Your task to perform on an android device: toggle priority inbox in the gmail app Image 0: 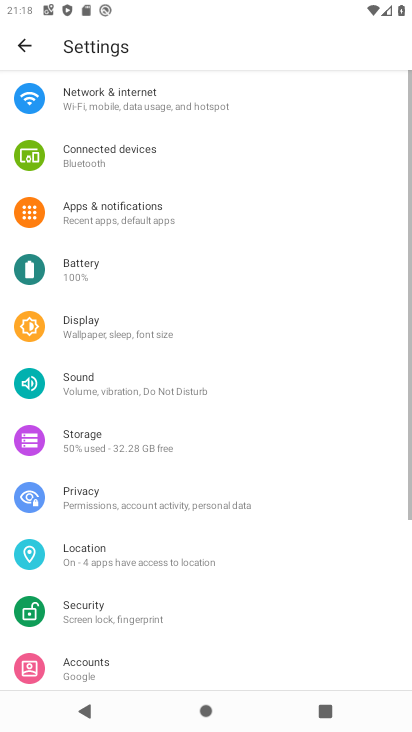
Step 0: press home button
Your task to perform on an android device: toggle priority inbox in the gmail app Image 1: 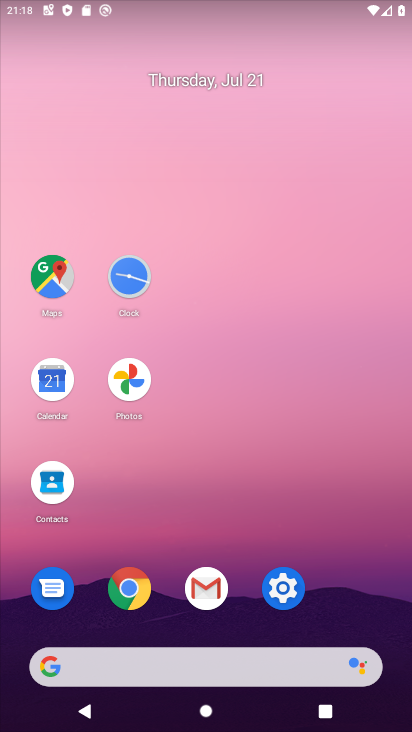
Step 1: click (200, 595)
Your task to perform on an android device: toggle priority inbox in the gmail app Image 2: 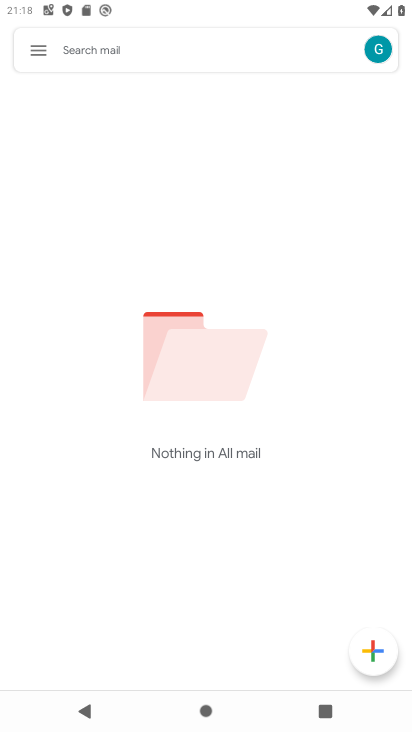
Step 2: click (36, 48)
Your task to perform on an android device: toggle priority inbox in the gmail app Image 3: 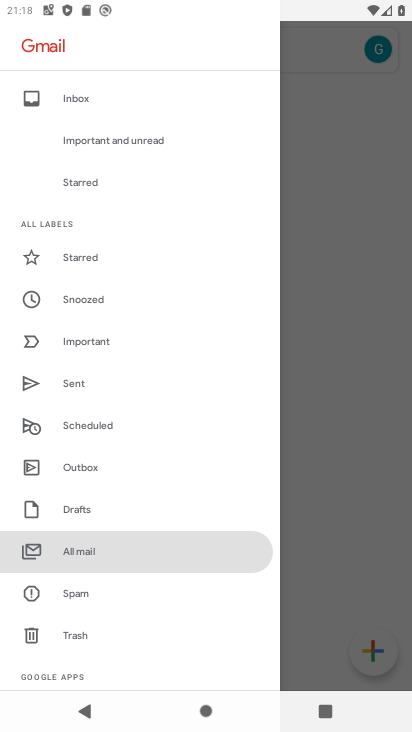
Step 3: drag from (148, 613) to (30, 201)
Your task to perform on an android device: toggle priority inbox in the gmail app Image 4: 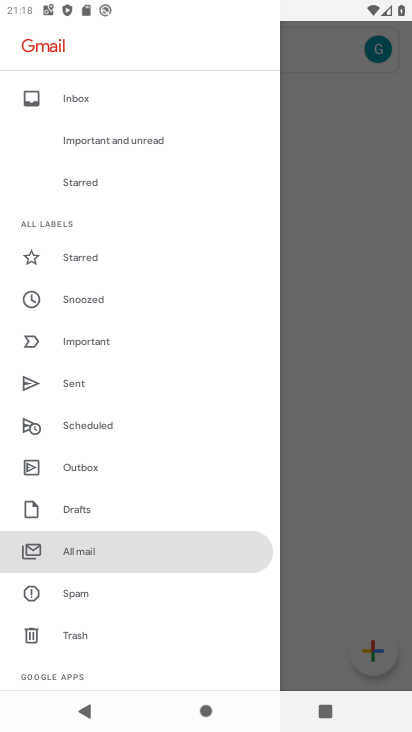
Step 4: drag from (127, 607) to (179, 302)
Your task to perform on an android device: toggle priority inbox in the gmail app Image 5: 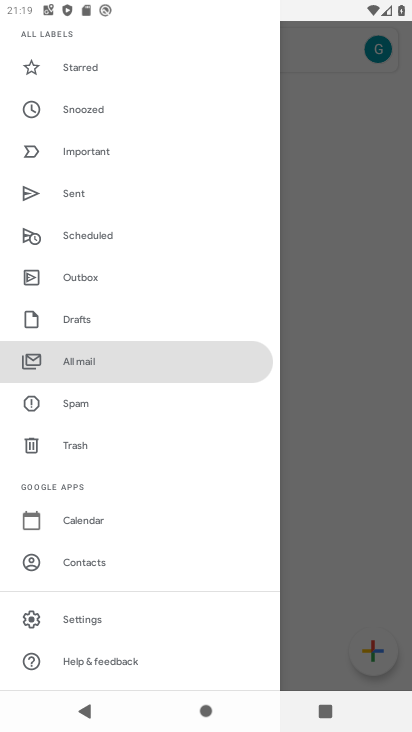
Step 5: click (80, 609)
Your task to perform on an android device: toggle priority inbox in the gmail app Image 6: 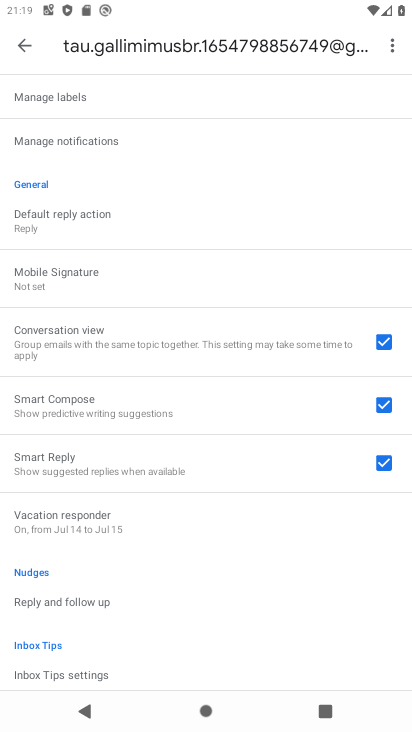
Step 6: drag from (187, 184) to (187, 491)
Your task to perform on an android device: toggle priority inbox in the gmail app Image 7: 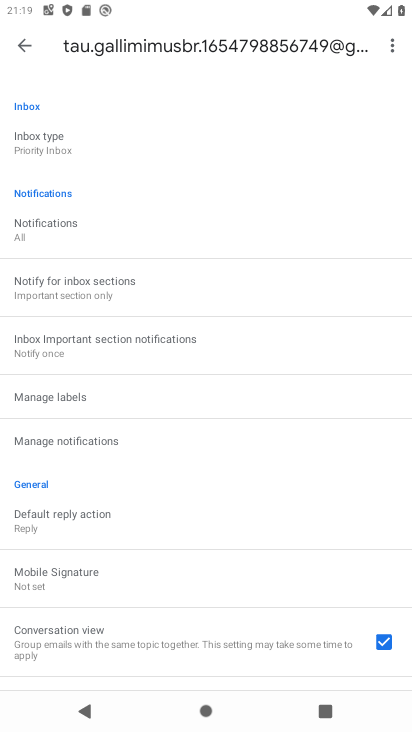
Step 7: click (37, 137)
Your task to perform on an android device: toggle priority inbox in the gmail app Image 8: 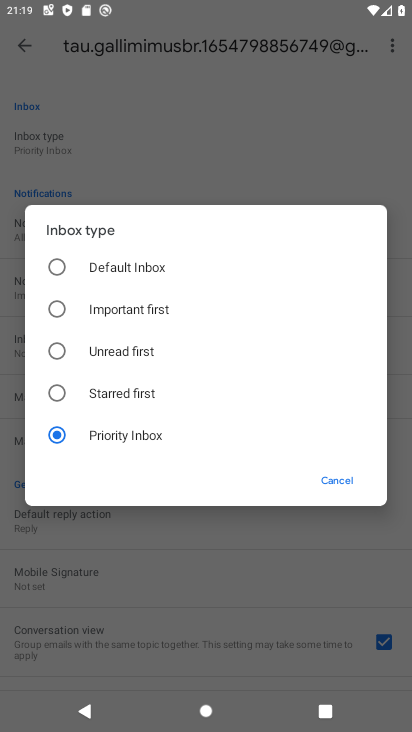
Step 8: click (56, 269)
Your task to perform on an android device: toggle priority inbox in the gmail app Image 9: 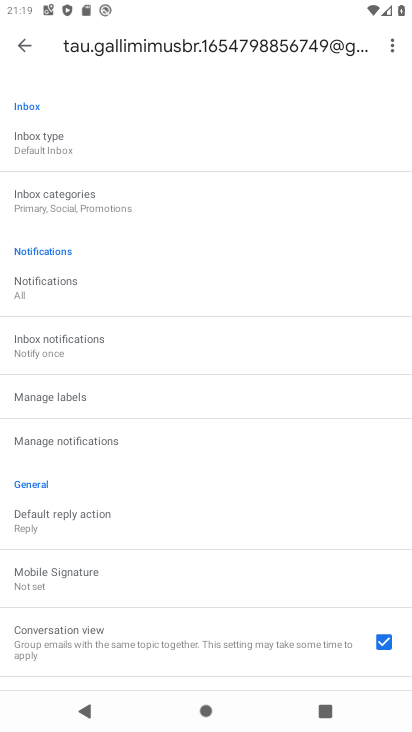
Step 9: task complete